Your task to perform on an android device: turn notification dots on Image 0: 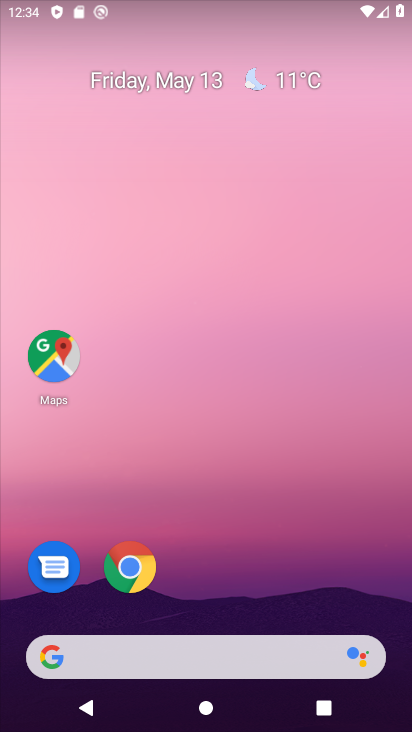
Step 0: click (116, 581)
Your task to perform on an android device: turn notification dots on Image 1: 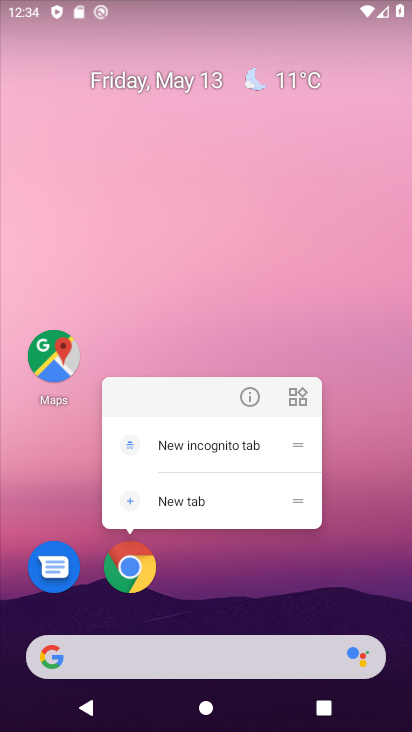
Step 1: click (113, 559)
Your task to perform on an android device: turn notification dots on Image 2: 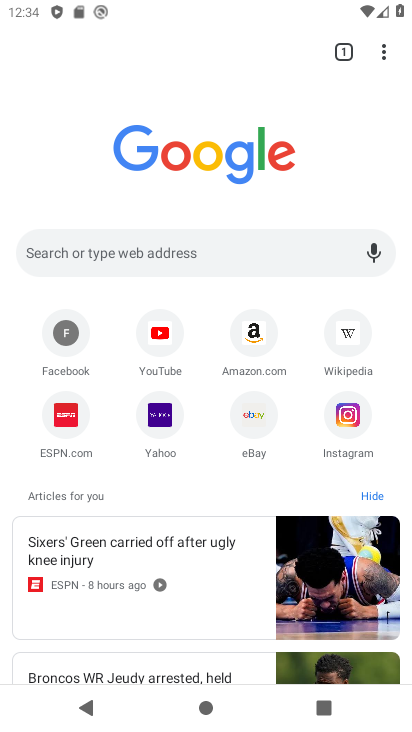
Step 2: click (160, 237)
Your task to perform on an android device: turn notification dots on Image 3: 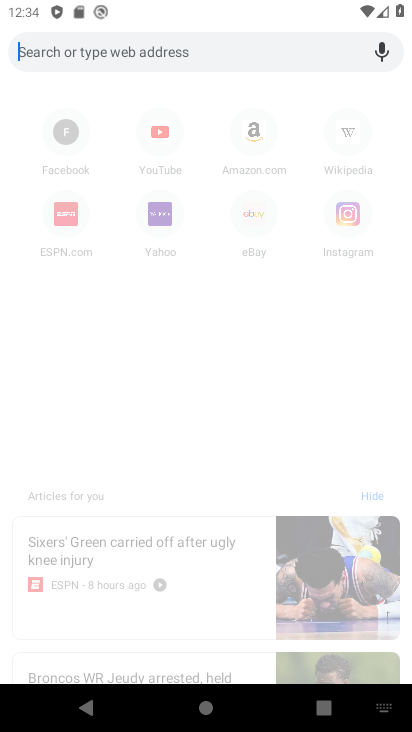
Step 3: type "www.cnn.com"
Your task to perform on an android device: turn notification dots on Image 4: 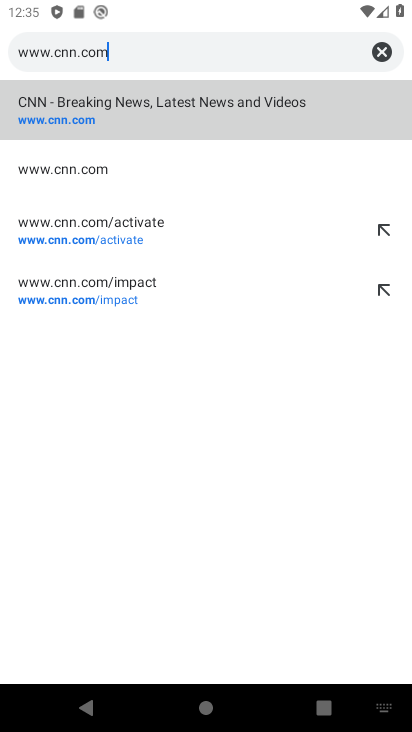
Step 4: click (77, 122)
Your task to perform on an android device: turn notification dots on Image 5: 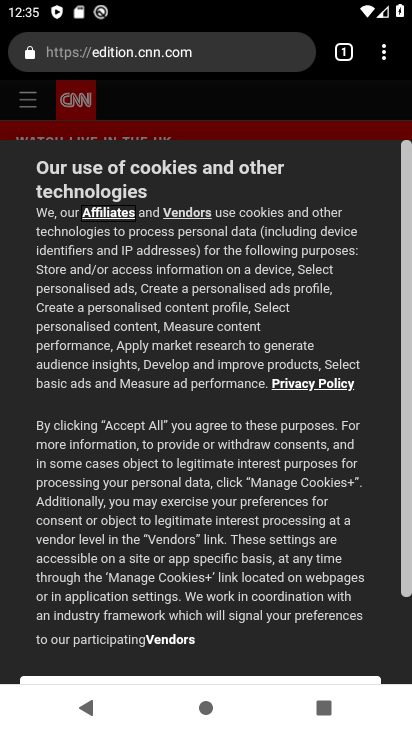
Step 5: task complete